Your task to perform on an android device: Search for hotels in San Diego Image 0: 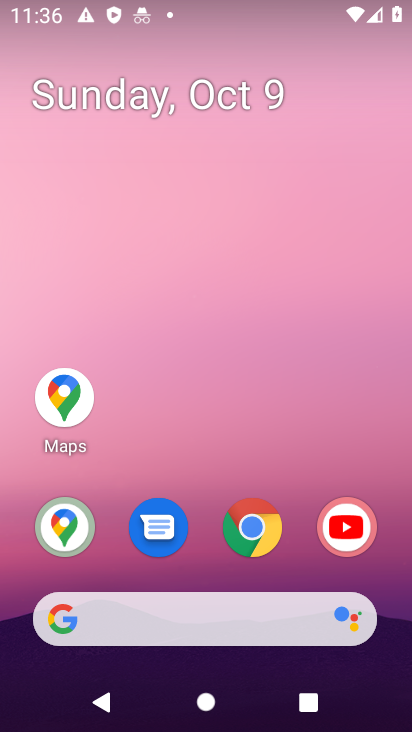
Step 0: click (63, 382)
Your task to perform on an android device: Search for hotels in San Diego Image 1: 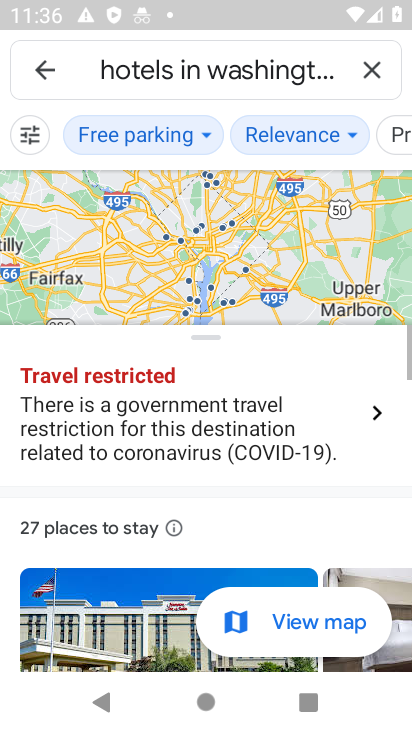
Step 1: click (258, 72)
Your task to perform on an android device: Search for hotels in San Diego Image 2: 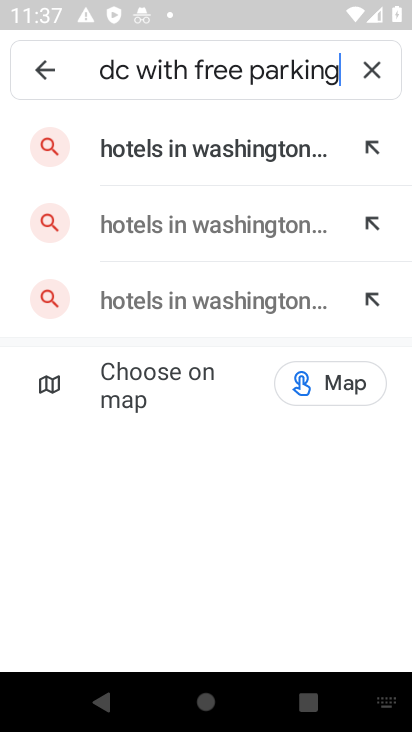
Step 2: click (371, 66)
Your task to perform on an android device: Search for hotels in San Diego Image 3: 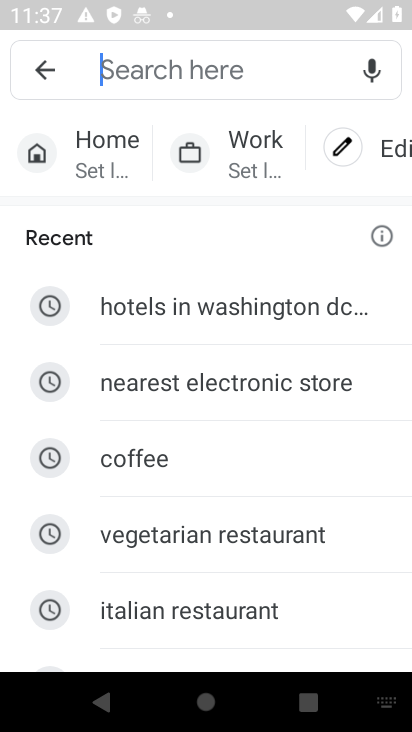
Step 3: type "hotels in San Diego"
Your task to perform on an android device: Search for hotels in San Diego Image 4: 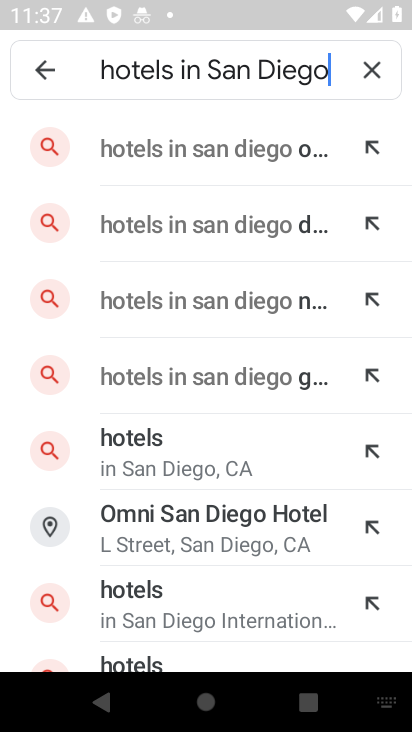
Step 4: click (206, 162)
Your task to perform on an android device: Search for hotels in San Diego Image 5: 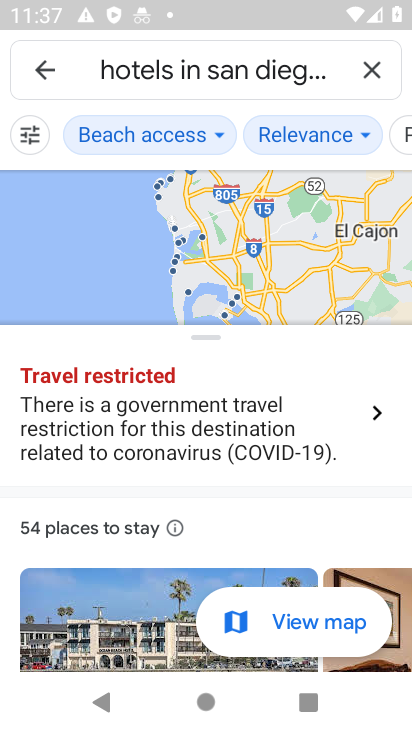
Step 5: task complete